Your task to perform on an android device: toggle pop-ups in chrome Image 0: 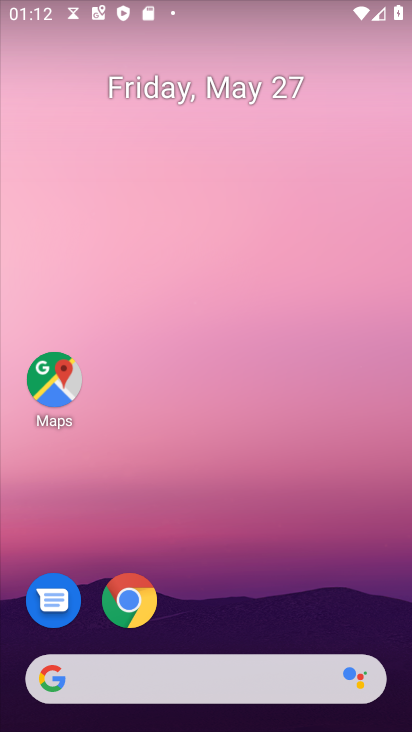
Step 0: click (128, 600)
Your task to perform on an android device: toggle pop-ups in chrome Image 1: 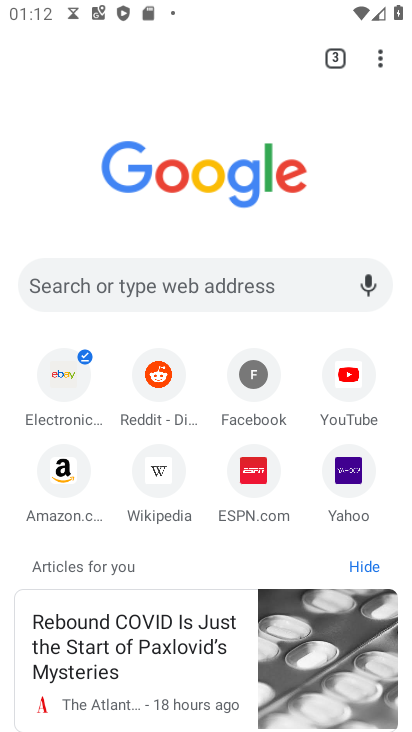
Step 1: click (377, 55)
Your task to perform on an android device: toggle pop-ups in chrome Image 2: 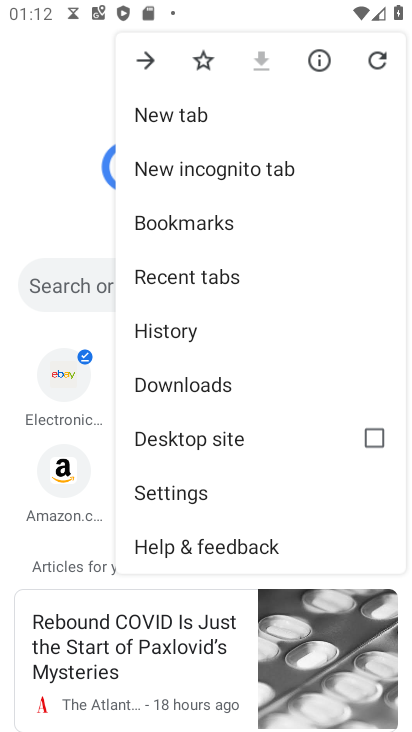
Step 2: click (200, 501)
Your task to perform on an android device: toggle pop-ups in chrome Image 3: 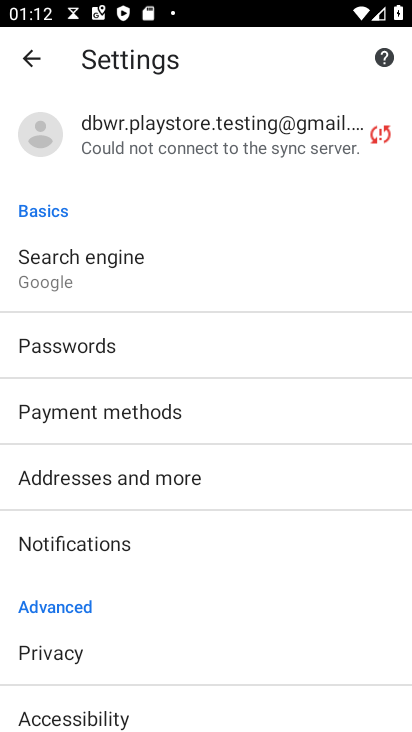
Step 3: drag from (175, 635) to (173, 309)
Your task to perform on an android device: toggle pop-ups in chrome Image 4: 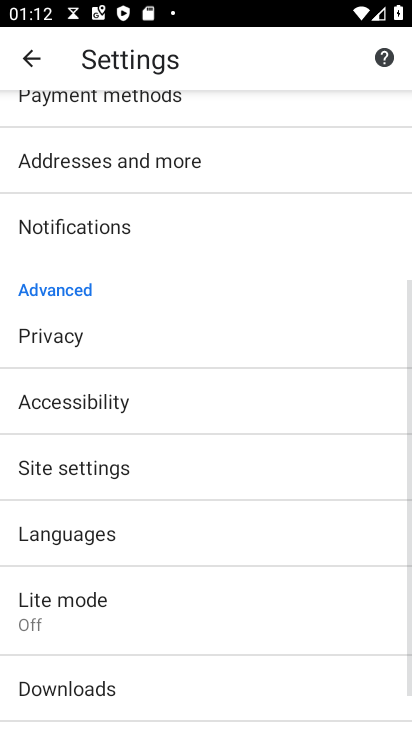
Step 4: click (197, 454)
Your task to perform on an android device: toggle pop-ups in chrome Image 5: 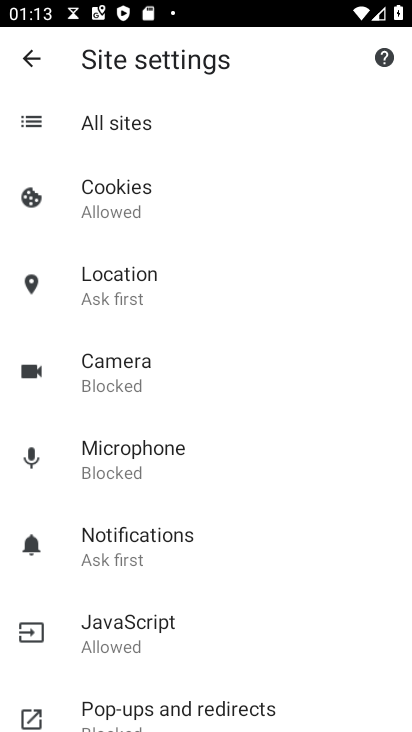
Step 5: click (196, 696)
Your task to perform on an android device: toggle pop-ups in chrome Image 6: 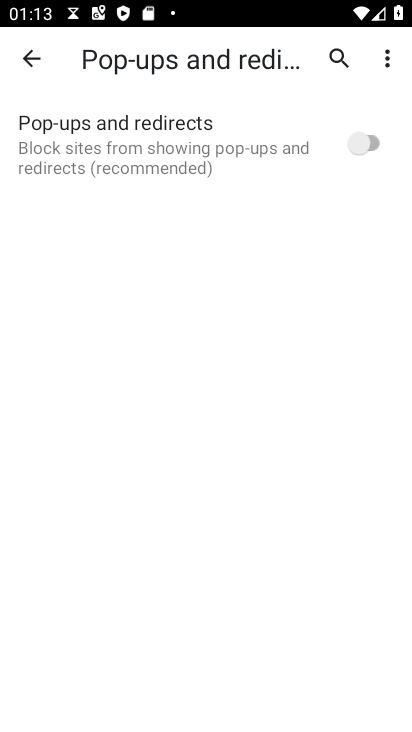
Step 6: click (386, 130)
Your task to perform on an android device: toggle pop-ups in chrome Image 7: 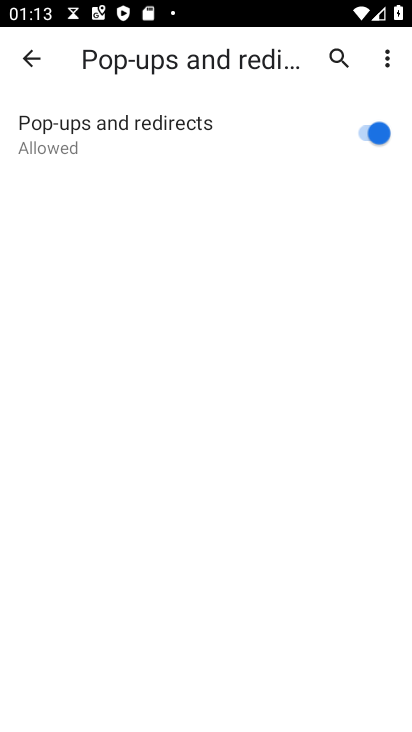
Step 7: task complete